Your task to perform on an android device: Go to Wikipedia Image 0: 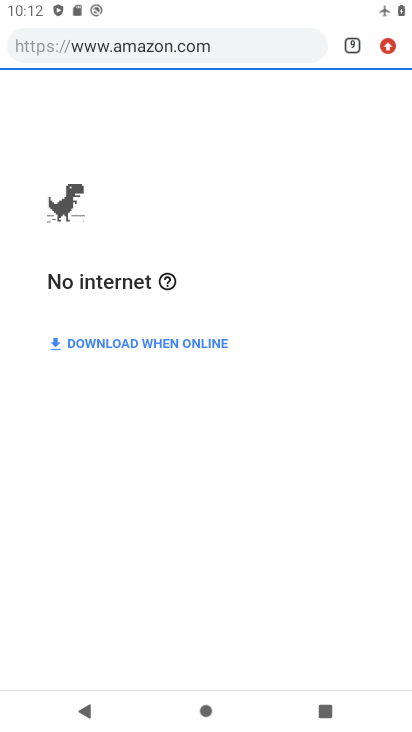
Step 0: press home button
Your task to perform on an android device: Go to Wikipedia Image 1: 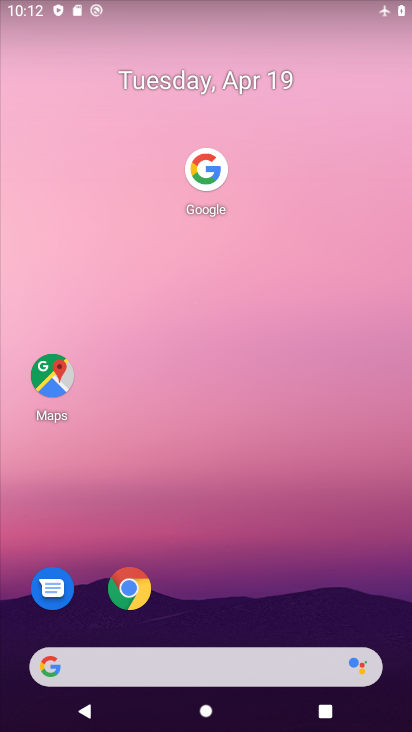
Step 1: drag from (208, 535) to (246, 174)
Your task to perform on an android device: Go to Wikipedia Image 2: 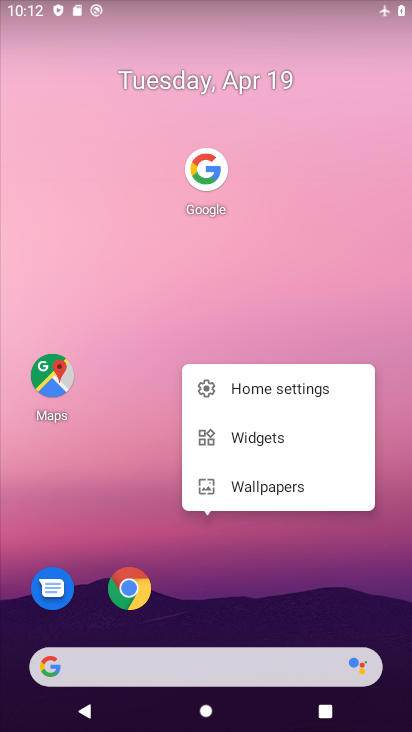
Step 2: click (244, 305)
Your task to perform on an android device: Go to Wikipedia Image 3: 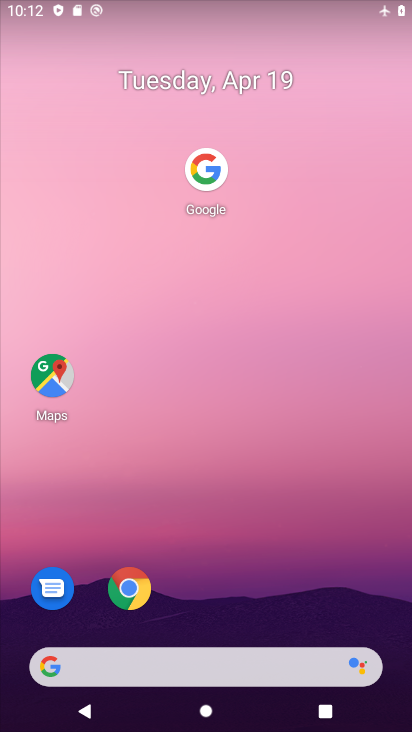
Step 3: drag from (234, 548) to (233, 30)
Your task to perform on an android device: Go to Wikipedia Image 4: 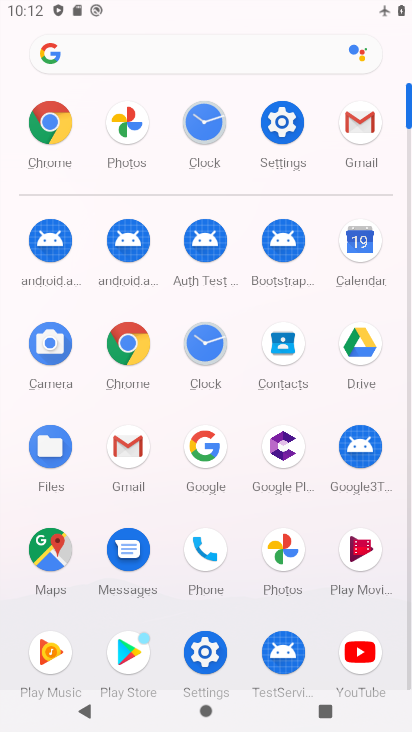
Step 4: click (53, 127)
Your task to perform on an android device: Go to Wikipedia Image 5: 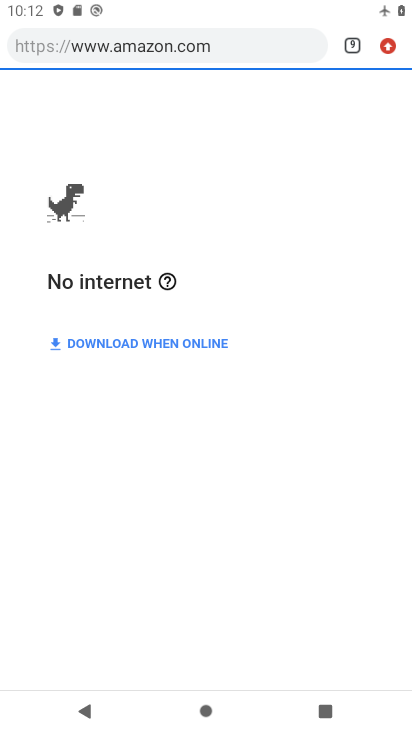
Step 5: click (388, 45)
Your task to perform on an android device: Go to Wikipedia Image 6: 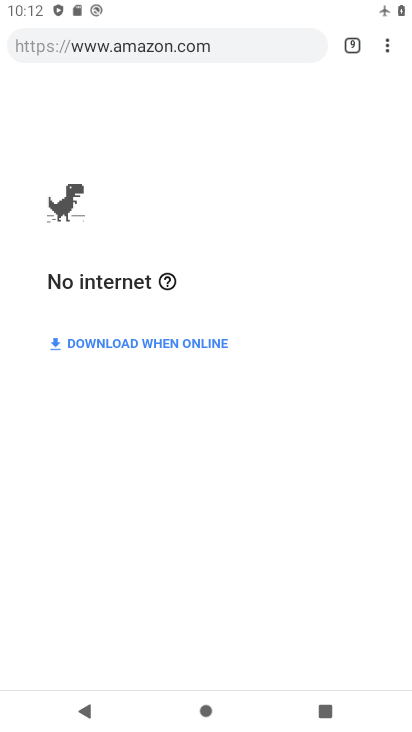
Step 6: click (385, 50)
Your task to perform on an android device: Go to Wikipedia Image 7: 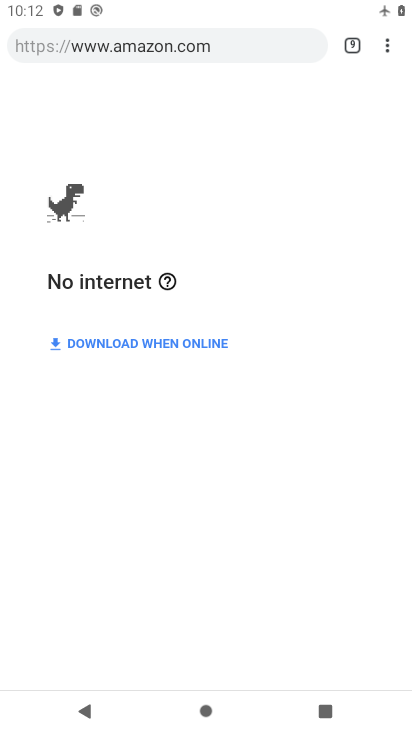
Step 7: click (384, 44)
Your task to perform on an android device: Go to Wikipedia Image 8: 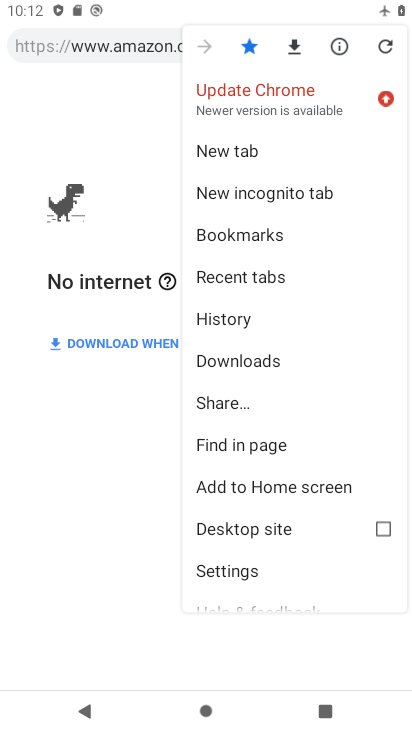
Step 8: click (240, 150)
Your task to perform on an android device: Go to Wikipedia Image 9: 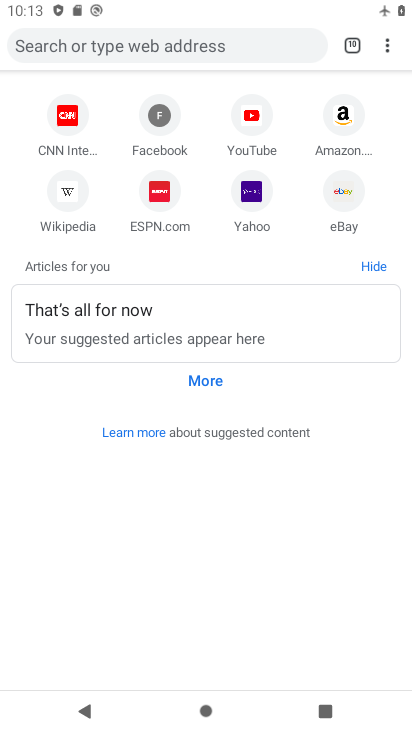
Step 9: click (69, 191)
Your task to perform on an android device: Go to Wikipedia Image 10: 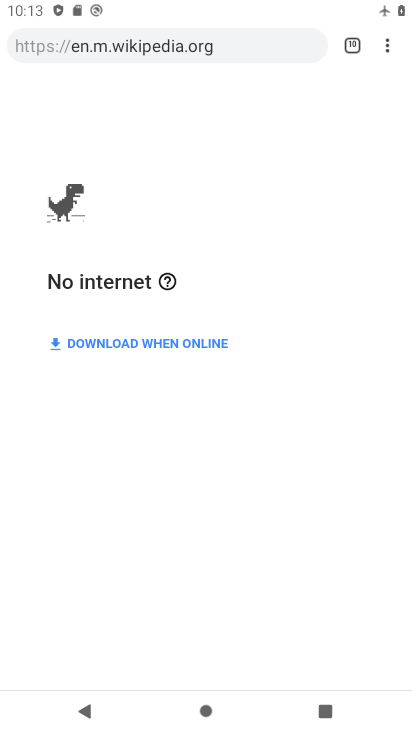
Step 10: task complete